Your task to perform on an android device: choose inbox layout in the gmail app Image 0: 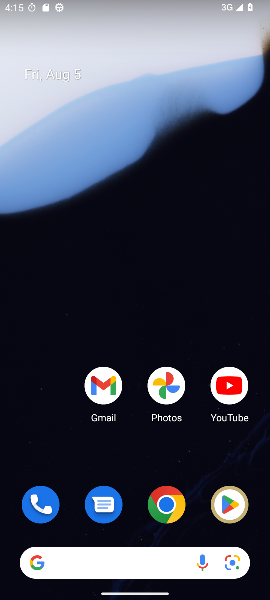
Step 0: click (94, 393)
Your task to perform on an android device: choose inbox layout in the gmail app Image 1: 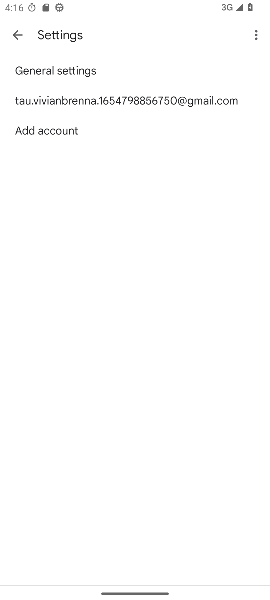
Step 1: click (8, 34)
Your task to perform on an android device: choose inbox layout in the gmail app Image 2: 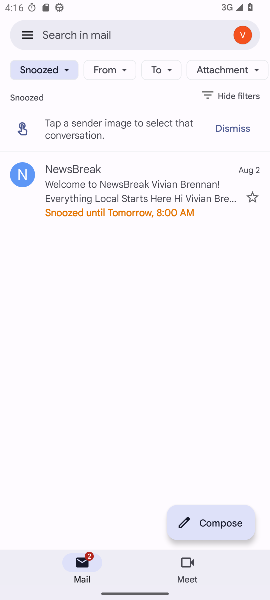
Step 2: click (21, 36)
Your task to perform on an android device: choose inbox layout in the gmail app Image 3: 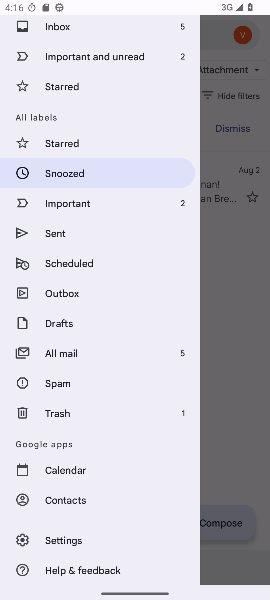
Step 3: click (65, 28)
Your task to perform on an android device: choose inbox layout in the gmail app Image 4: 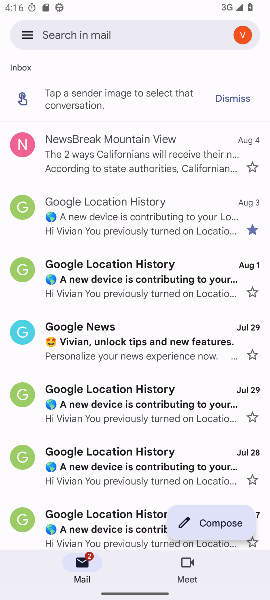
Step 4: click (21, 37)
Your task to perform on an android device: choose inbox layout in the gmail app Image 5: 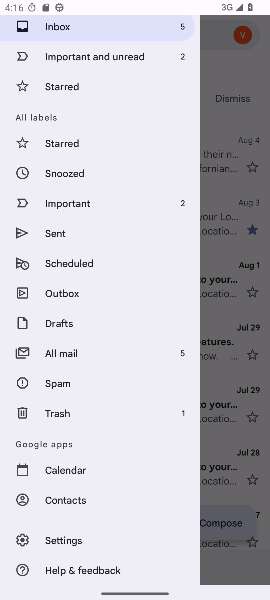
Step 5: click (68, 539)
Your task to perform on an android device: choose inbox layout in the gmail app Image 6: 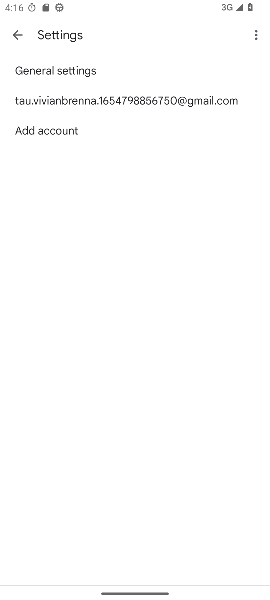
Step 6: click (65, 88)
Your task to perform on an android device: choose inbox layout in the gmail app Image 7: 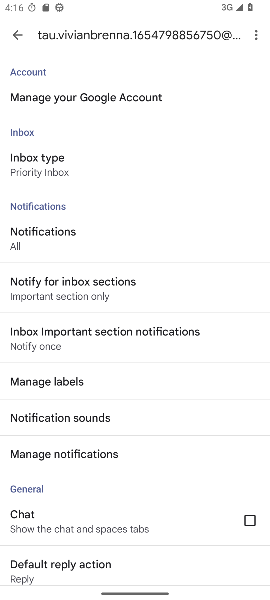
Step 7: task complete